Your task to perform on an android device: What is the news today? Image 0: 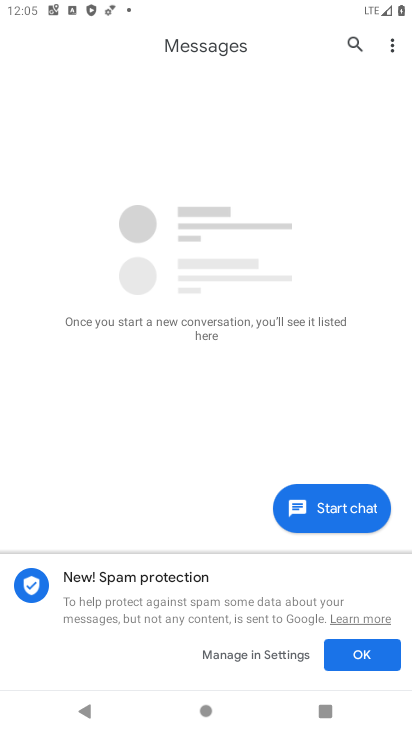
Step 0: press home button
Your task to perform on an android device: What is the news today? Image 1: 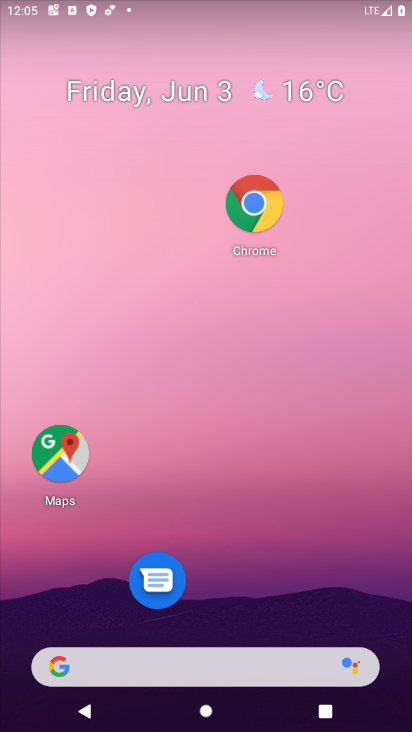
Step 1: drag from (224, 539) to (224, 368)
Your task to perform on an android device: What is the news today? Image 2: 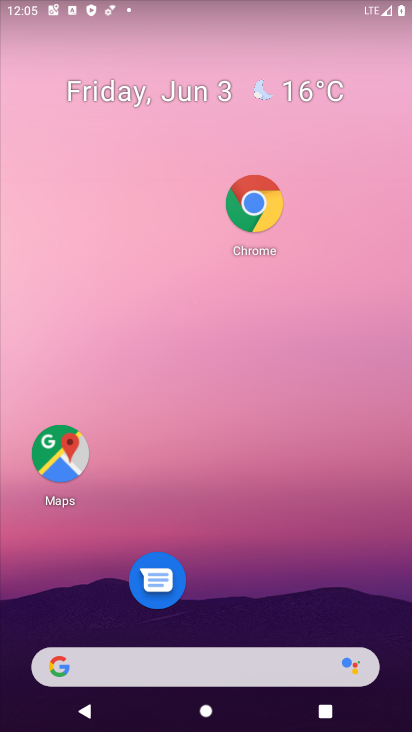
Step 2: drag from (242, 666) to (245, 246)
Your task to perform on an android device: What is the news today? Image 3: 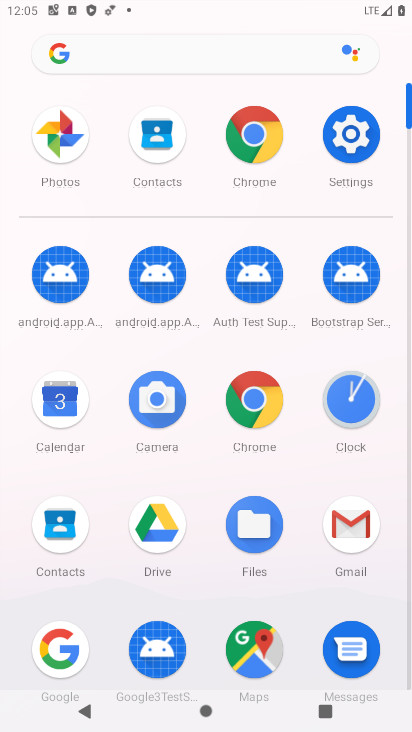
Step 3: drag from (205, 397) to (224, 268)
Your task to perform on an android device: What is the news today? Image 4: 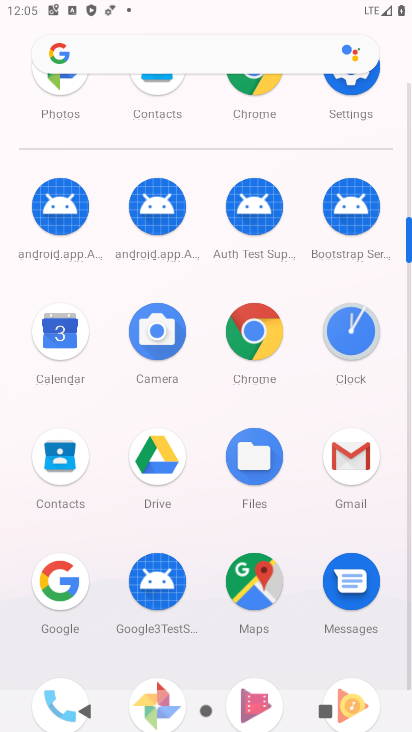
Step 4: click (72, 589)
Your task to perform on an android device: What is the news today? Image 5: 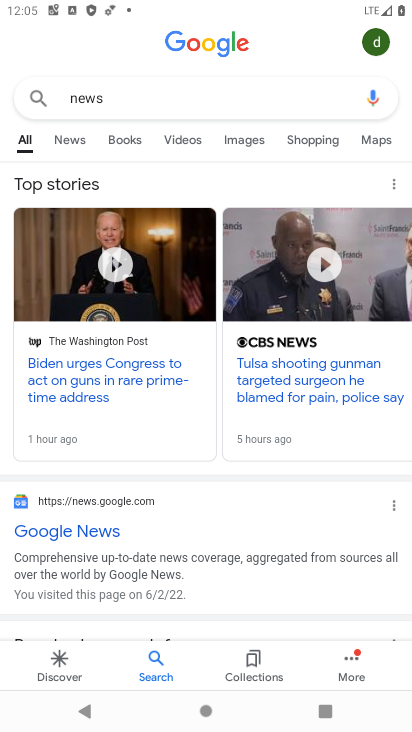
Step 5: click (55, 649)
Your task to perform on an android device: What is the news today? Image 6: 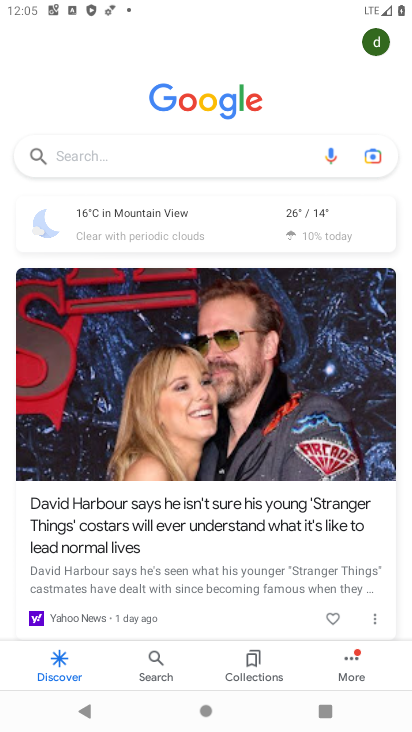
Step 6: task complete